Your task to perform on an android device: find photos in the google photos app Image 0: 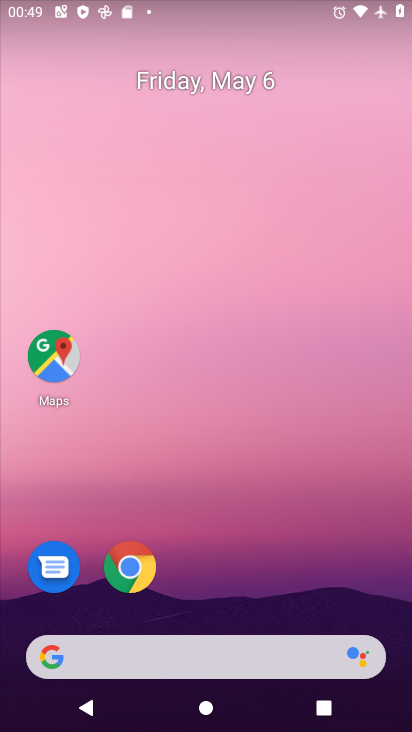
Step 0: drag from (198, 582) to (198, 145)
Your task to perform on an android device: find photos in the google photos app Image 1: 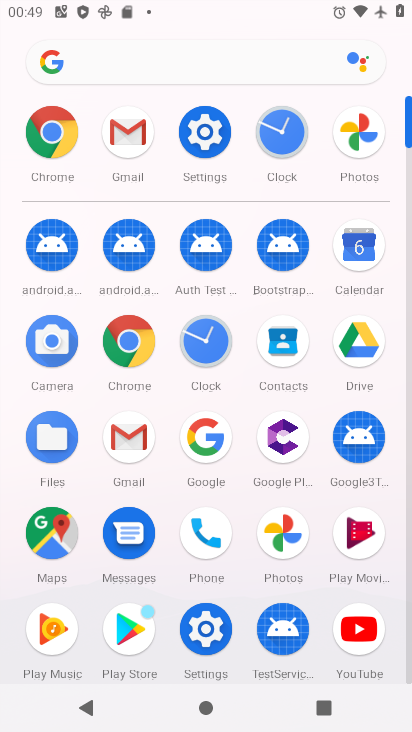
Step 1: click (353, 126)
Your task to perform on an android device: find photos in the google photos app Image 2: 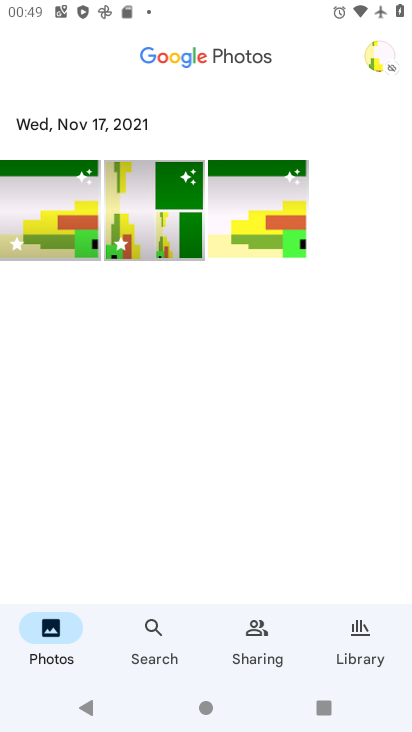
Step 2: click (156, 627)
Your task to perform on an android device: find photos in the google photos app Image 3: 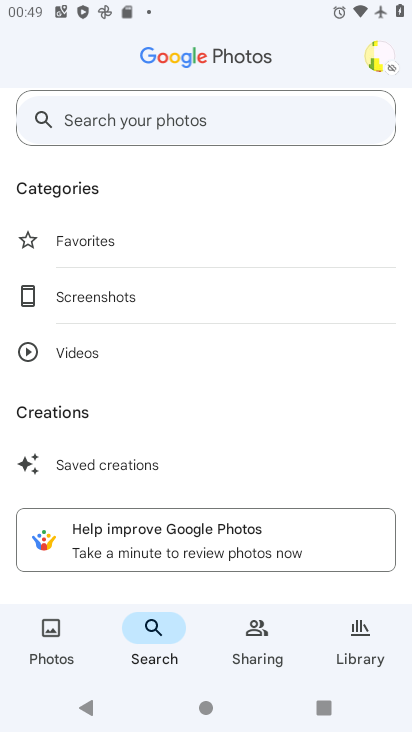
Step 3: click (163, 117)
Your task to perform on an android device: find photos in the google photos app Image 4: 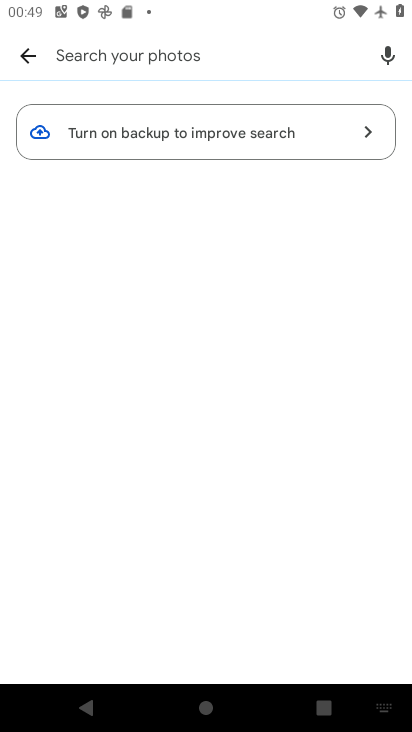
Step 4: type "aa"
Your task to perform on an android device: find photos in the google photos app Image 5: 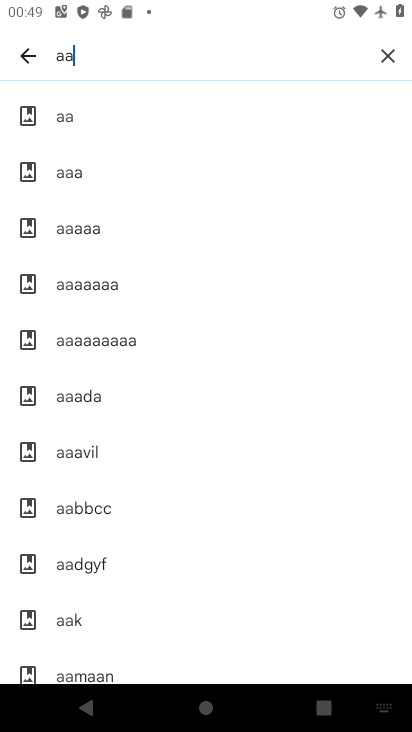
Step 5: click (120, 396)
Your task to perform on an android device: find photos in the google photos app Image 6: 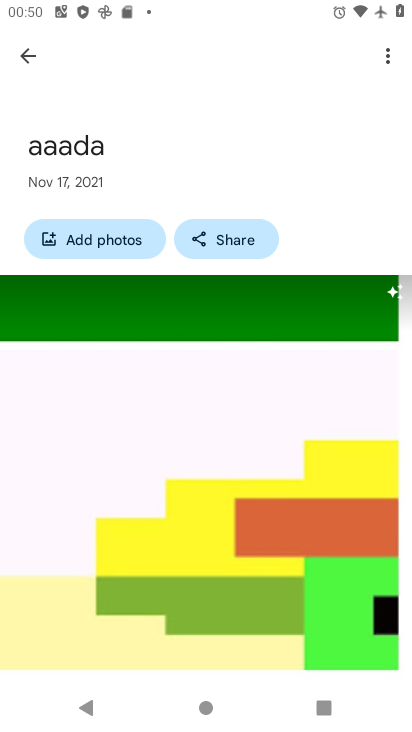
Step 6: task complete